Your task to perform on an android device: search for starred emails in the gmail app Image 0: 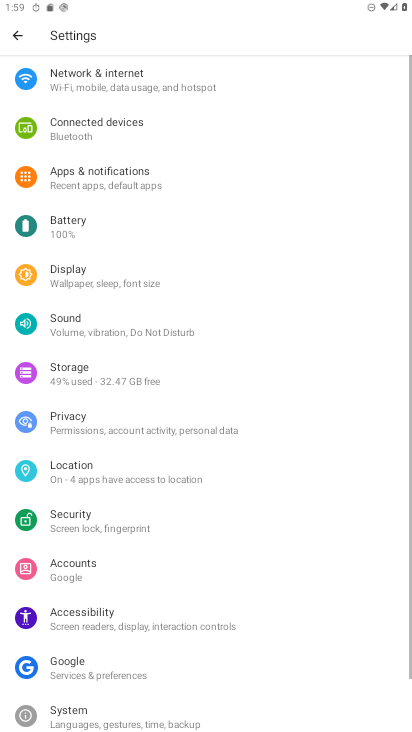
Step 0: press home button
Your task to perform on an android device: search for starred emails in the gmail app Image 1: 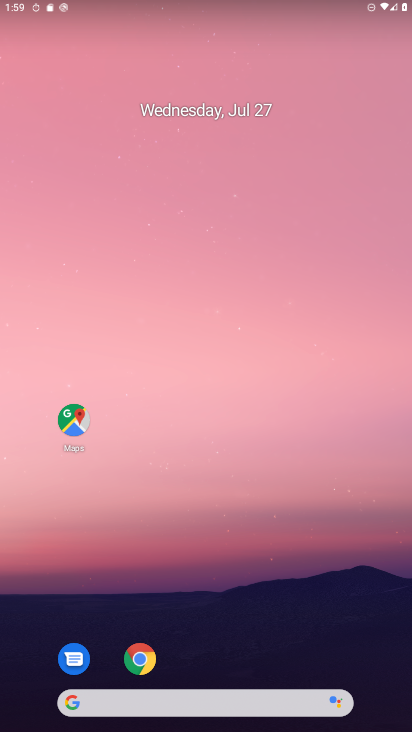
Step 1: drag from (268, 596) to (127, 52)
Your task to perform on an android device: search for starred emails in the gmail app Image 2: 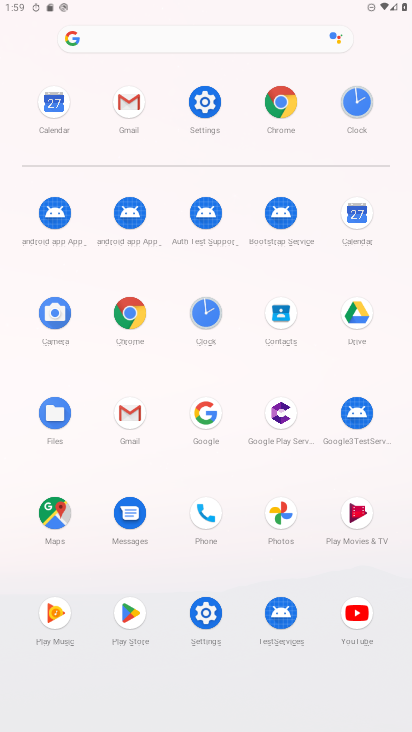
Step 2: click (127, 107)
Your task to perform on an android device: search for starred emails in the gmail app Image 3: 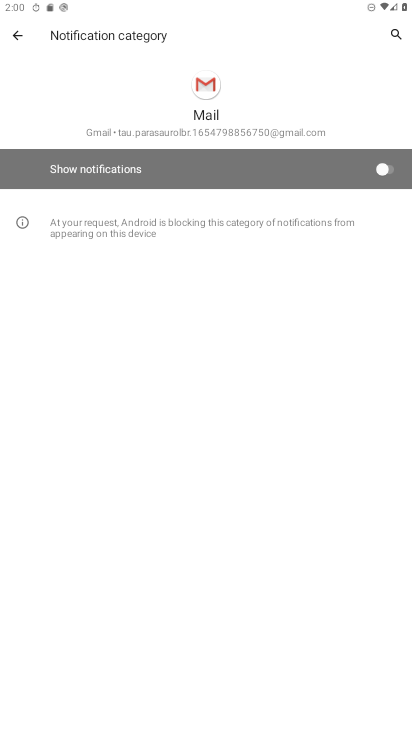
Step 3: click (14, 30)
Your task to perform on an android device: search for starred emails in the gmail app Image 4: 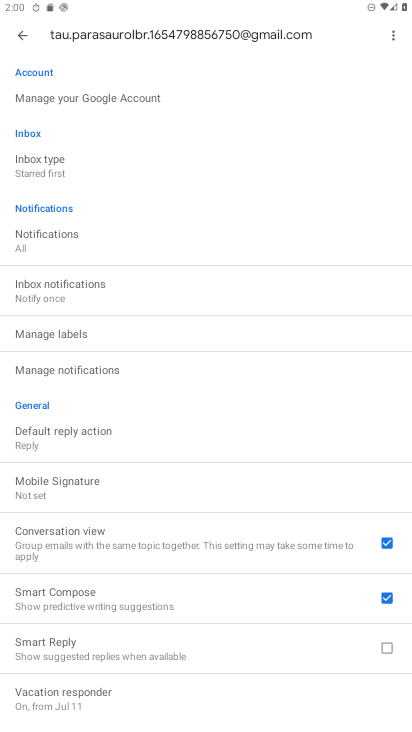
Step 4: click (22, 42)
Your task to perform on an android device: search for starred emails in the gmail app Image 5: 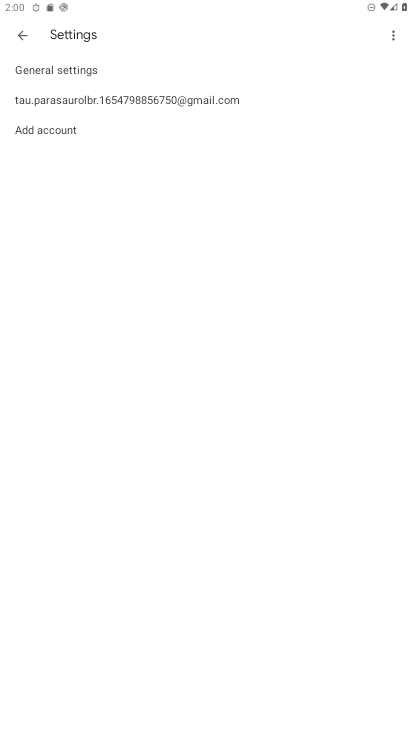
Step 5: click (22, 42)
Your task to perform on an android device: search for starred emails in the gmail app Image 6: 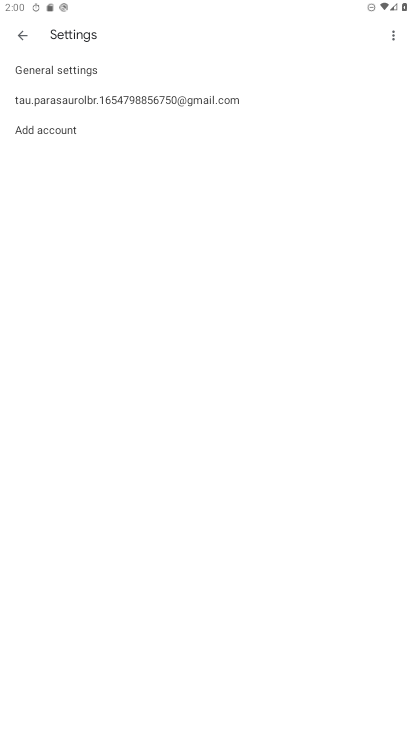
Step 6: click (22, 42)
Your task to perform on an android device: search for starred emails in the gmail app Image 7: 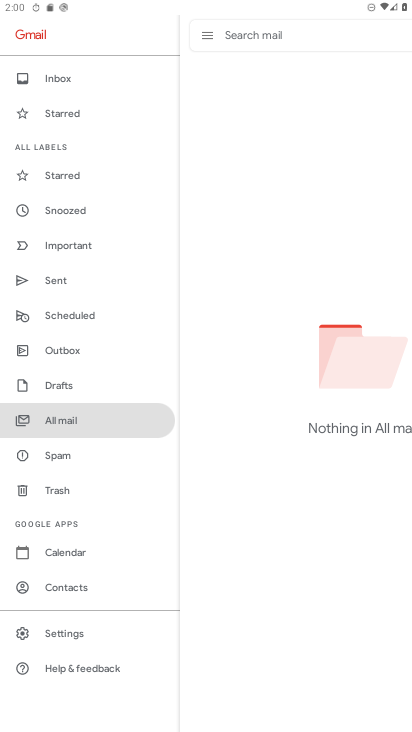
Step 7: click (58, 169)
Your task to perform on an android device: search for starred emails in the gmail app Image 8: 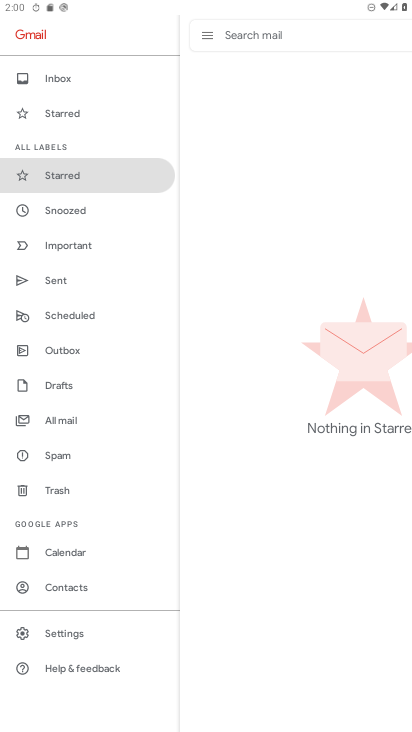
Step 8: task complete